Your task to perform on an android device: Go to settings Image 0: 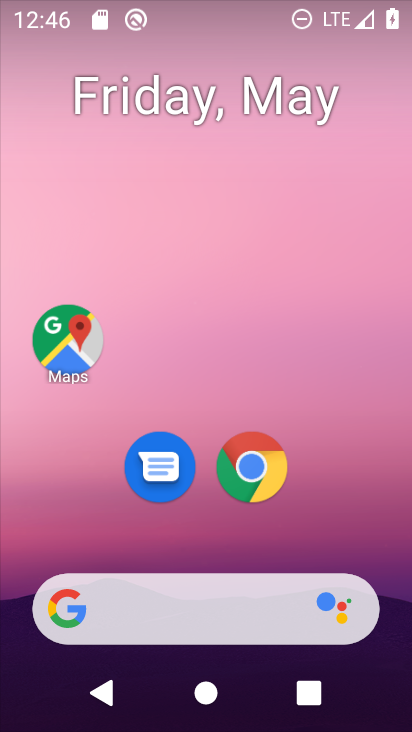
Step 0: drag from (260, 581) to (313, 66)
Your task to perform on an android device: Go to settings Image 1: 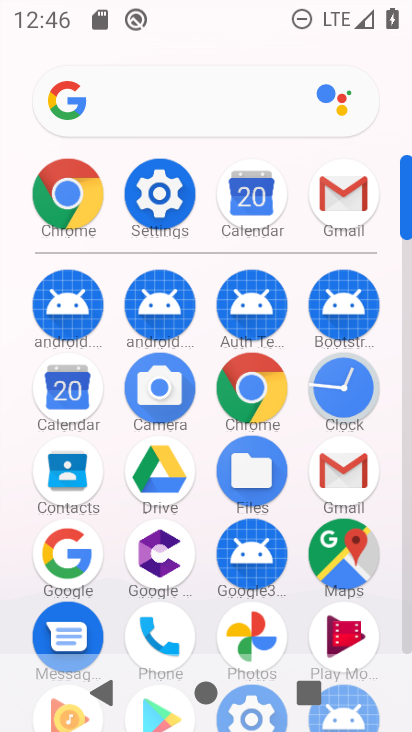
Step 1: click (154, 177)
Your task to perform on an android device: Go to settings Image 2: 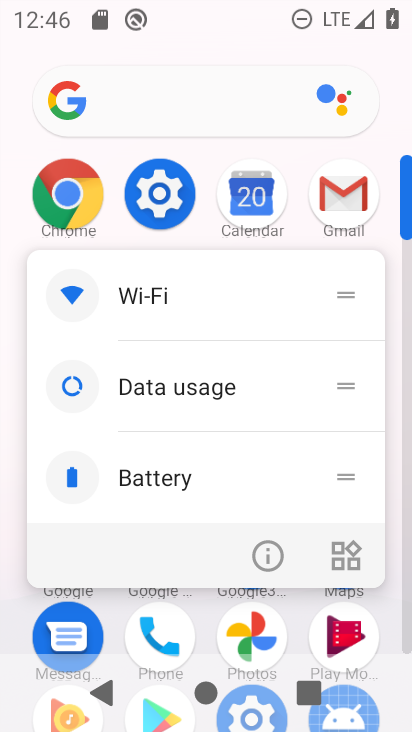
Step 2: click (179, 198)
Your task to perform on an android device: Go to settings Image 3: 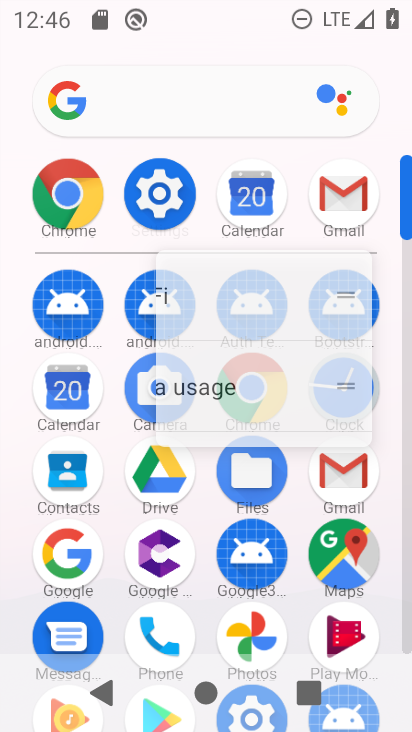
Step 3: click (179, 198)
Your task to perform on an android device: Go to settings Image 4: 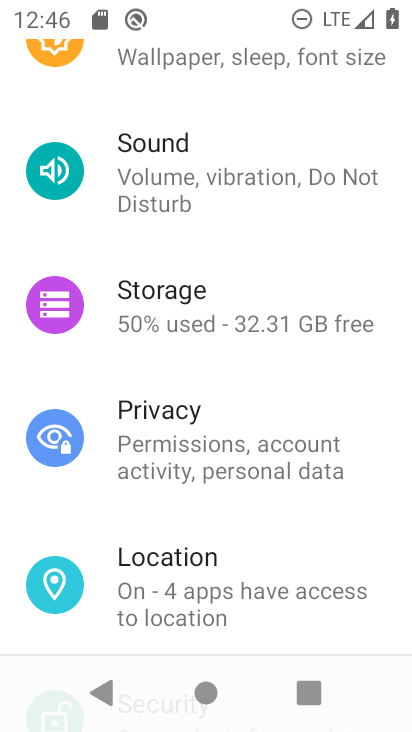
Step 4: task complete